Your task to perform on an android device: Open calendar and show me the fourth week of next month Image 0: 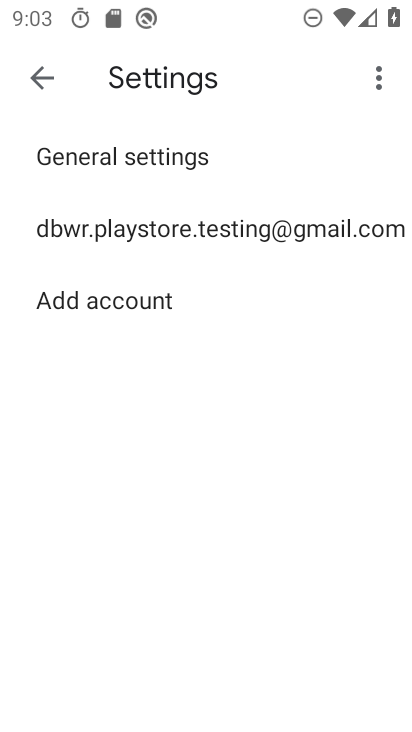
Step 0: press home button
Your task to perform on an android device: Open calendar and show me the fourth week of next month Image 1: 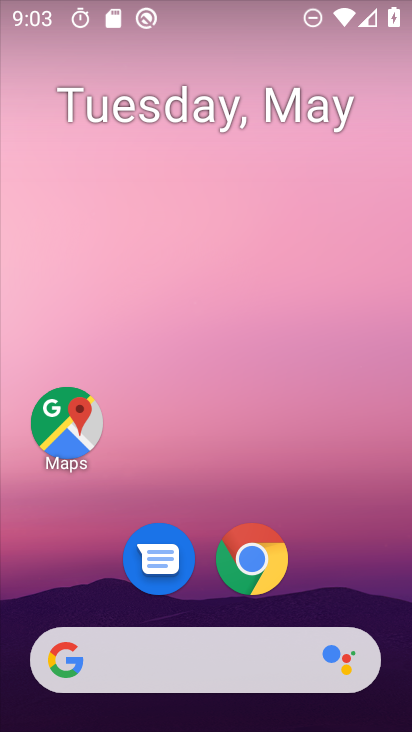
Step 1: drag from (398, 639) to (246, 103)
Your task to perform on an android device: Open calendar and show me the fourth week of next month Image 2: 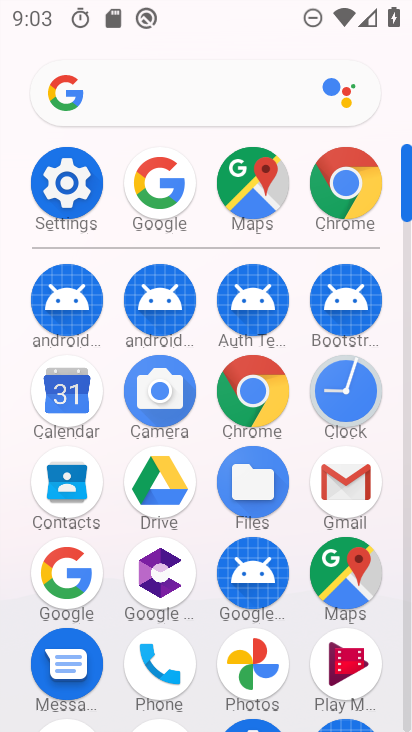
Step 2: click (56, 411)
Your task to perform on an android device: Open calendar and show me the fourth week of next month Image 3: 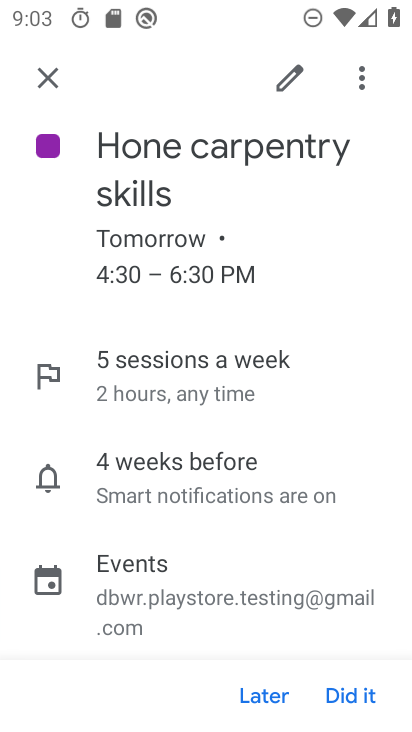
Step 3: press back button
Your task to perform on an android device: Open calendar and show me the fourth week of next month Image 4: 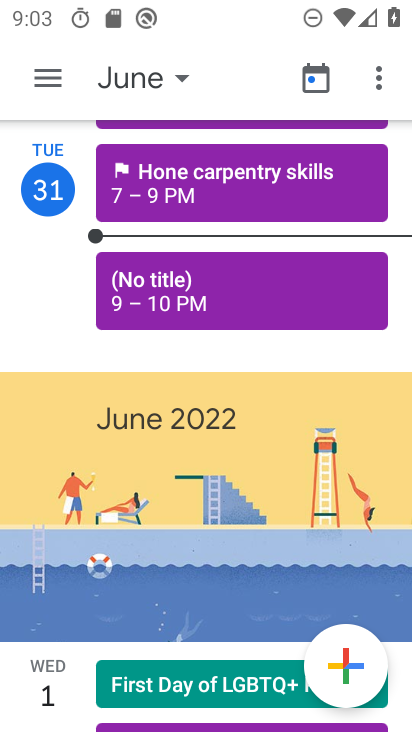
Step 4: click (123, 59)
Your task to perform on an android device: Open calendar and show me the fourth week of next month Image 5: 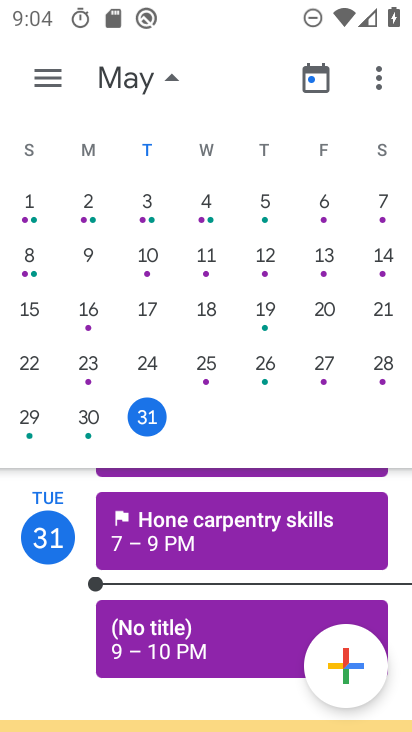
Step 5: drag from (387, 260) to (57, 309)
Your task to perform on an android device: Open calendar and show me the fourth week of next month Image 6: 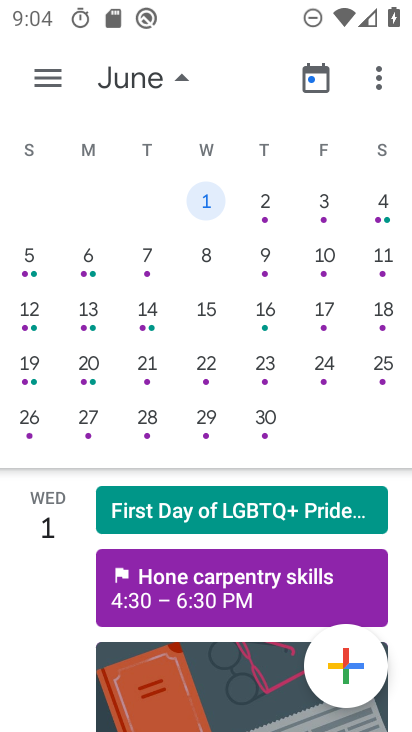
Step 6: click (89, 427)
Your task to perform on an android device: Open calendar and show me the fourth week of next month Image 7: 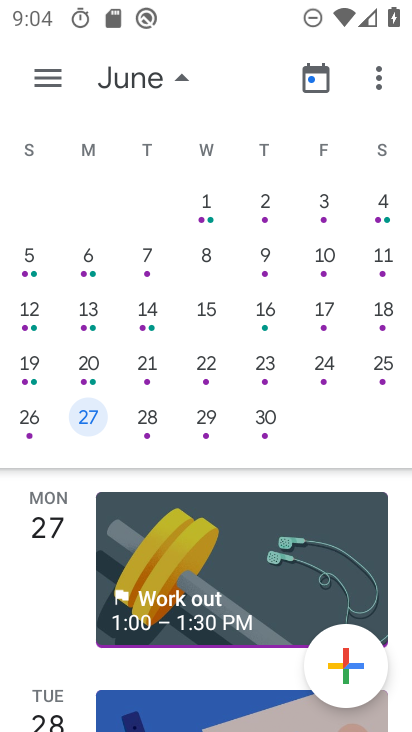
Step 7: task complete